Your task to perform on an android device: Open Youtube and go to "Your channel" Image 0: 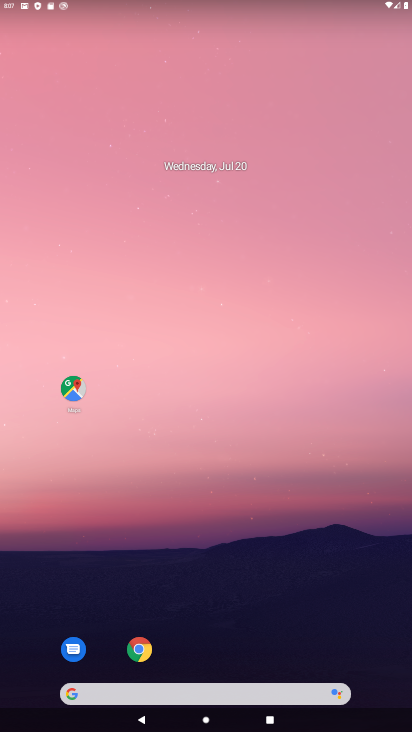
Step 0: drag from (211, 358) to (211, 242)
Your task to perform on an android device: Open Youtube and go to "Your channel" Image 1: 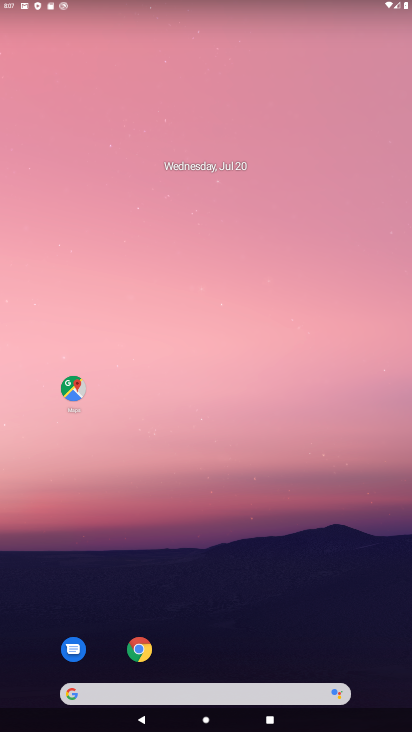
Step 1: drag from (171, 406) to (155, 193)
Your task to perform on an android device: Open Youtube and go to "Your channel" Image 2: 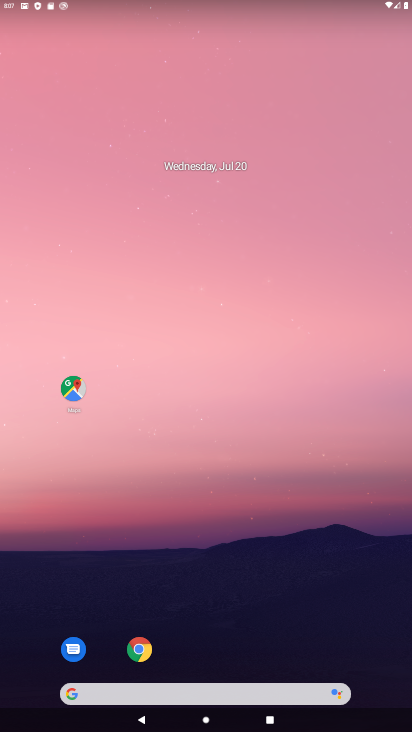
Step 2: drag from (220, 688) to (219, 220)
Your task to perform on an android device: Open Youtube and go to "Your channel" Image 3: 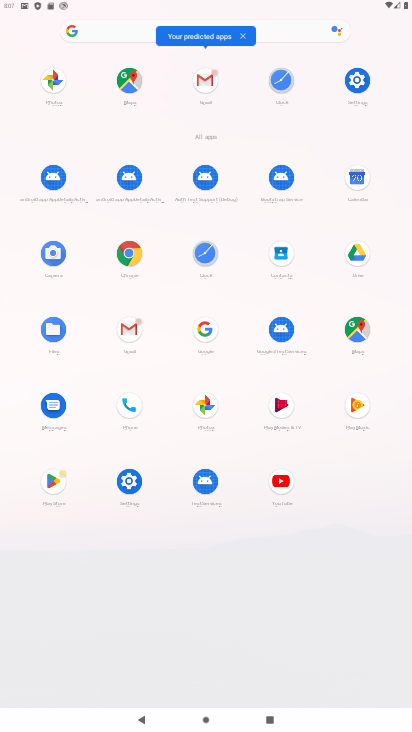
Step 3: click (281, 478)
Your task to perform on an android device: Open Youtube and go to "Your channel" Image 4: 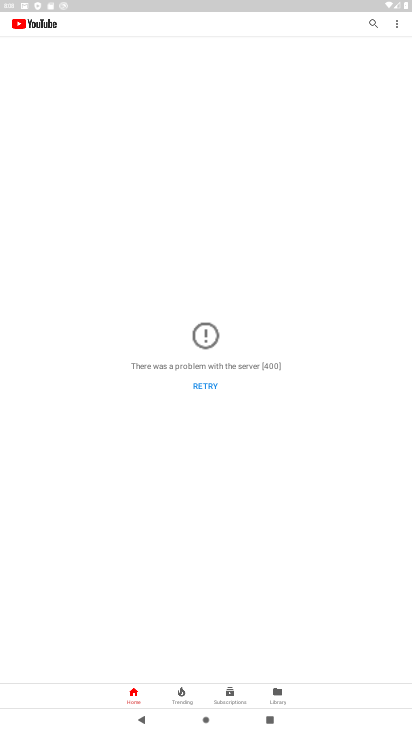
Step 4: task complete